Your task to perform on an android device: turn off priority inbox in the gmail app Image 0: 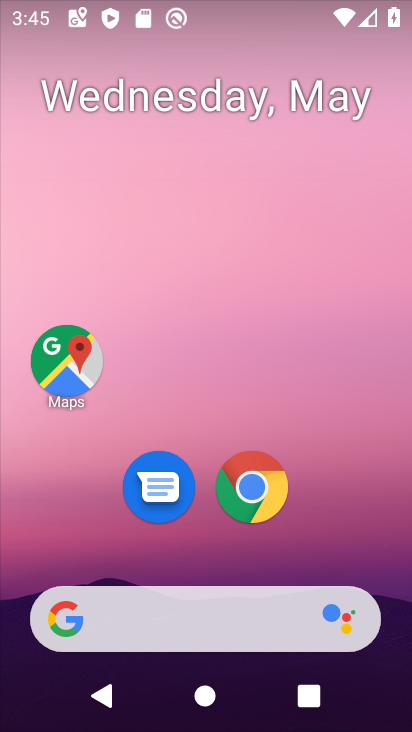
Step 0: drag from (368, 562) to (276, 45)
Your task to perform on an android device: turn off priority inbox in the gmail app Image 1: 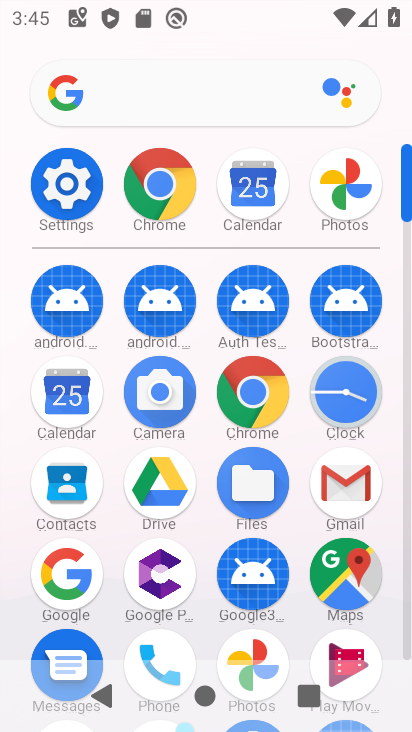
Step 1: drag from (14, 504) to (38, 209)
Your task to perform on an android device: turn off priority inbox in the gmail app Image 2: 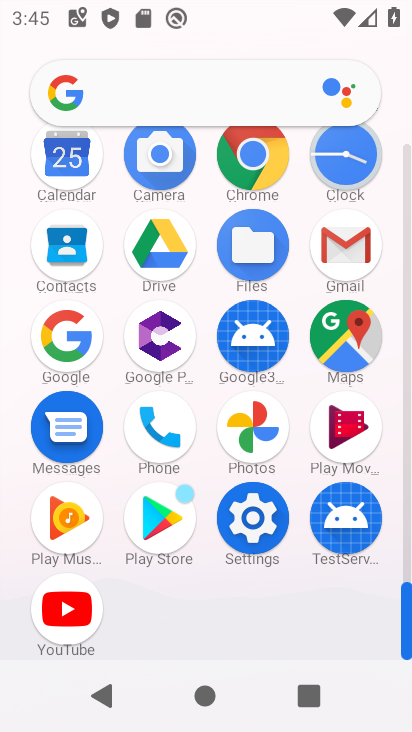
Step 2: drag from (21, 550) to (19, 226)
Your task to perform on an android device: turn off priority inbox in the gmail app Image 3: 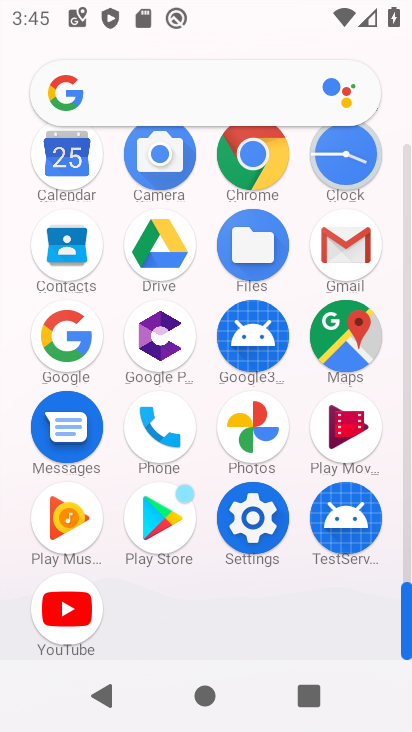
Step 3: click (347, 241)
Your task to perform on an android device: turn off priority inbox in the gmail app Image 4: 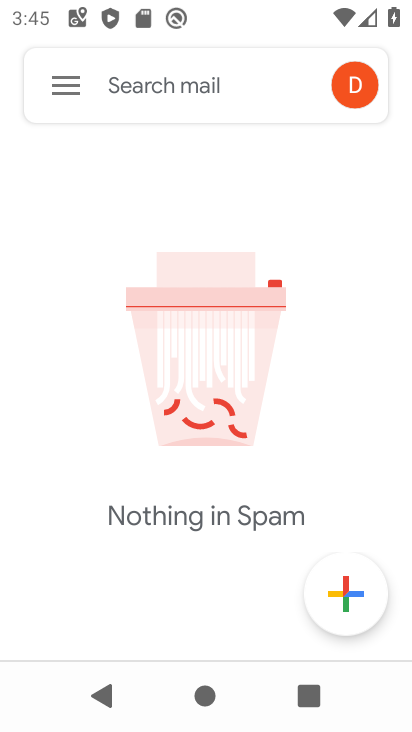
Step 4: click (53, 78)
Your task to perform on an android device: turn off priority inbox in the gmail app Image 5: 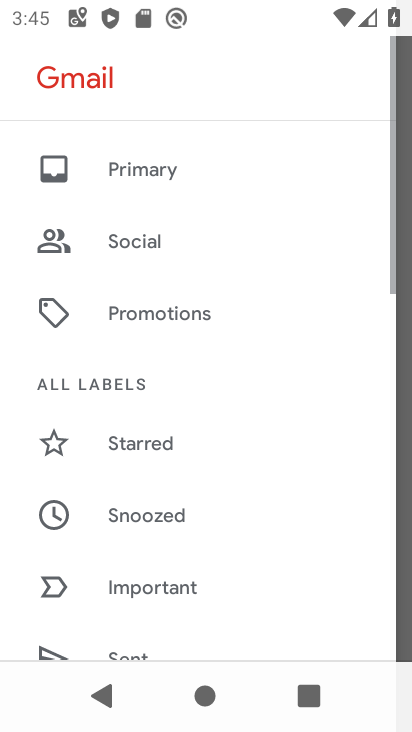
Step 5: drag from (216, 599) to (262, 136)
Your task to perform on an android device: turn off priority inbox in the gmail app Image 6: 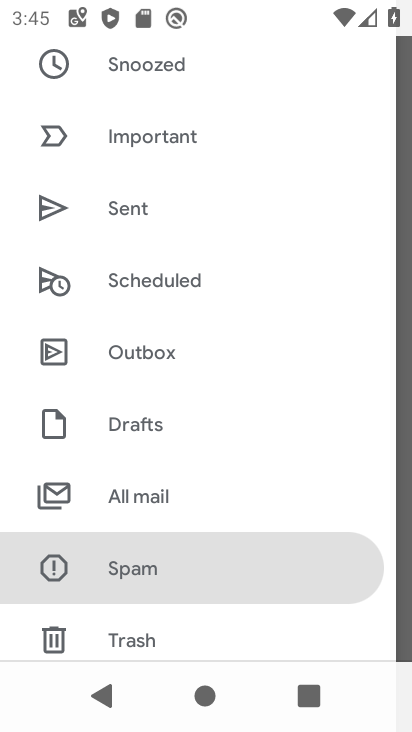
Step 6: drag from (202, 582) to (244, 150)
Your task to perform on an android device: turn off priority inbox in the gmail app Image 7: 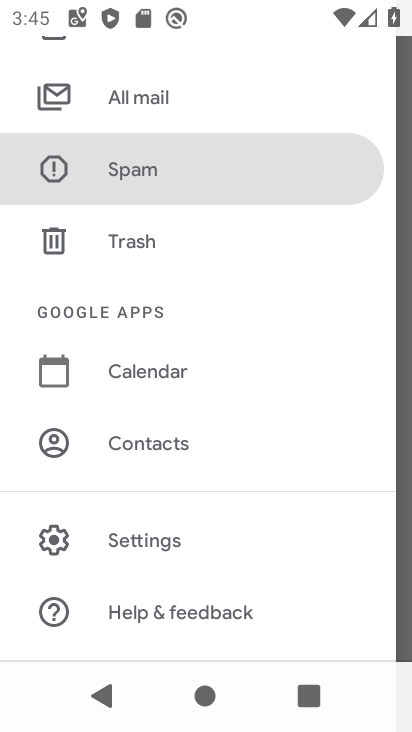
Step 7: click (179, 539)
Your task to perform on an android device: turn off priority inbox in the gmail app Image 8: 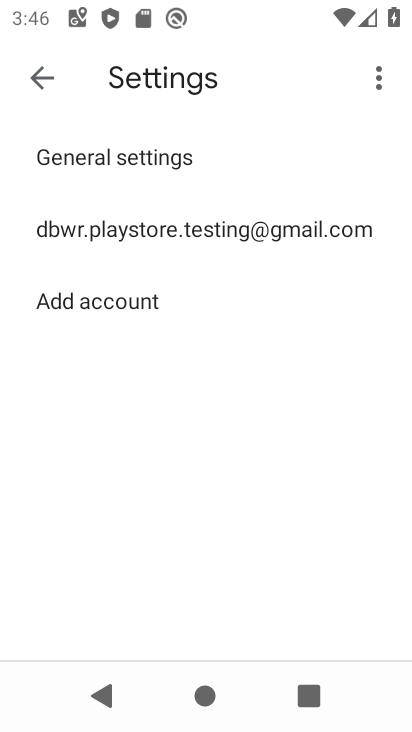
Step 8: click (207, 233)
Your task to perform on an android device: turn off priority inbox in the gmail app Image 9: 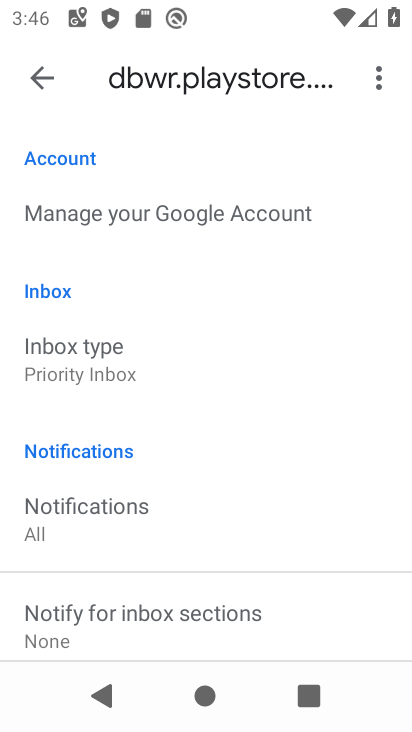
Step 9: click (130, 360)
Your task to perform on an android device: turn off priority inbox in the gmail app Image 10: 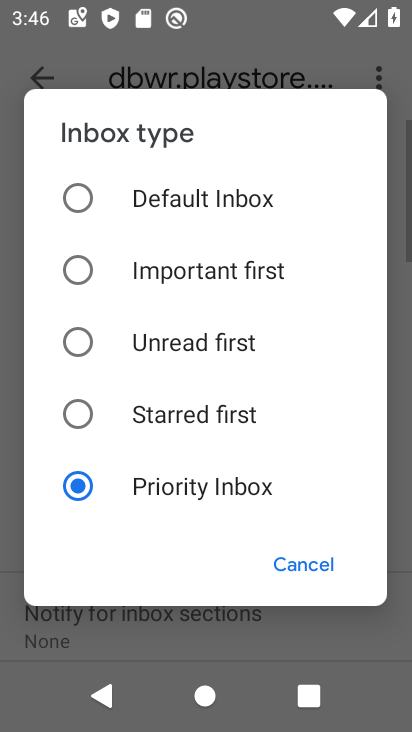
Step 10: click (173, 476)
Your task to perform on an android device: turn off priority inbox in the gmail app Image 11: 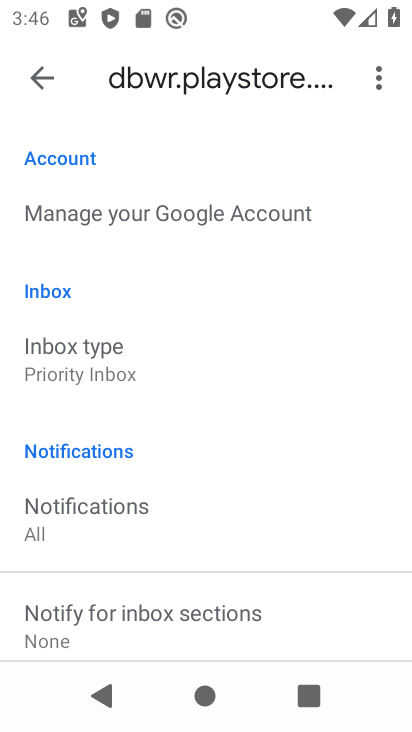
Step 11: drag from (254, 561) to (257, 199)
Your task to perform on an android device: turn off priority inbox in the gmail app Image 12: 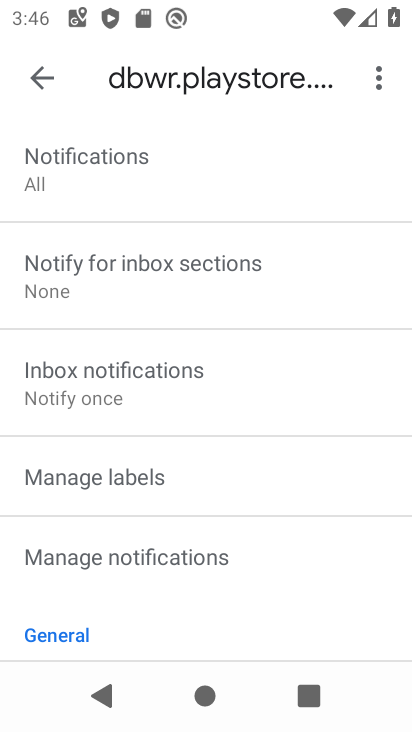
Step 12: drag from (195, 197) to (195, 525)
Your task to perform on an android device: turn off priority inbox in the gmail app Image 13: 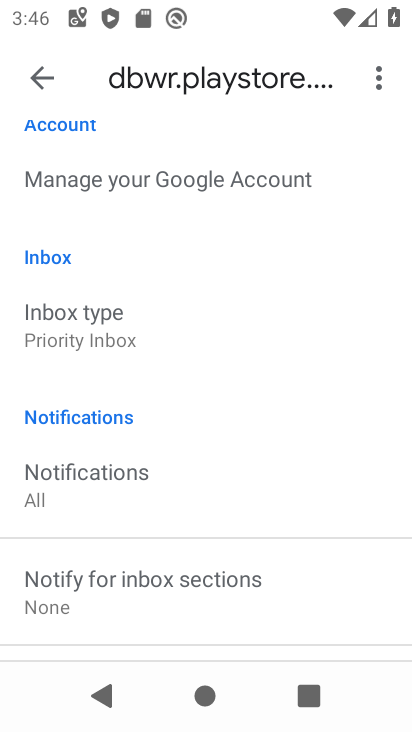
Step 13: click (96, 344)
Your task to perform on an android device: turn off priority inbox in the gmail app Image 14: 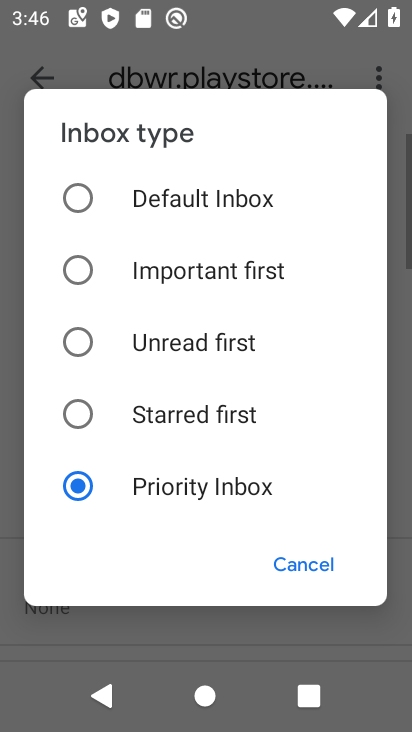
Step 14: click (160, 207)
Your task to perform on an android device: turn off priority inbox in the gmail app Image 15: 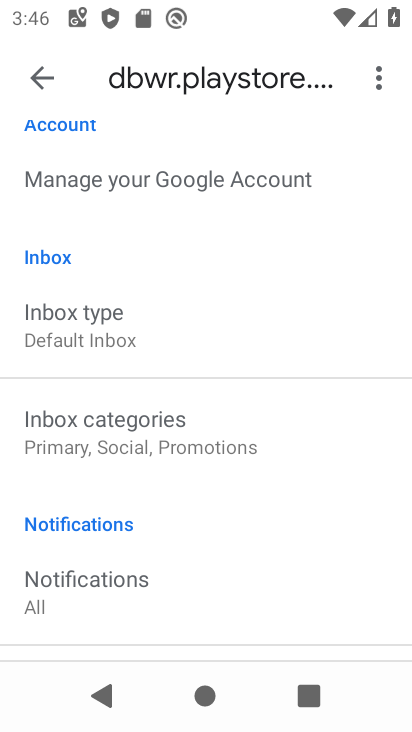
Step 15: task complete